Your task to perform on an android device: Empty the shopping cart on target.com. Add "jbl flip 4" to the cart on target.com Image 0: 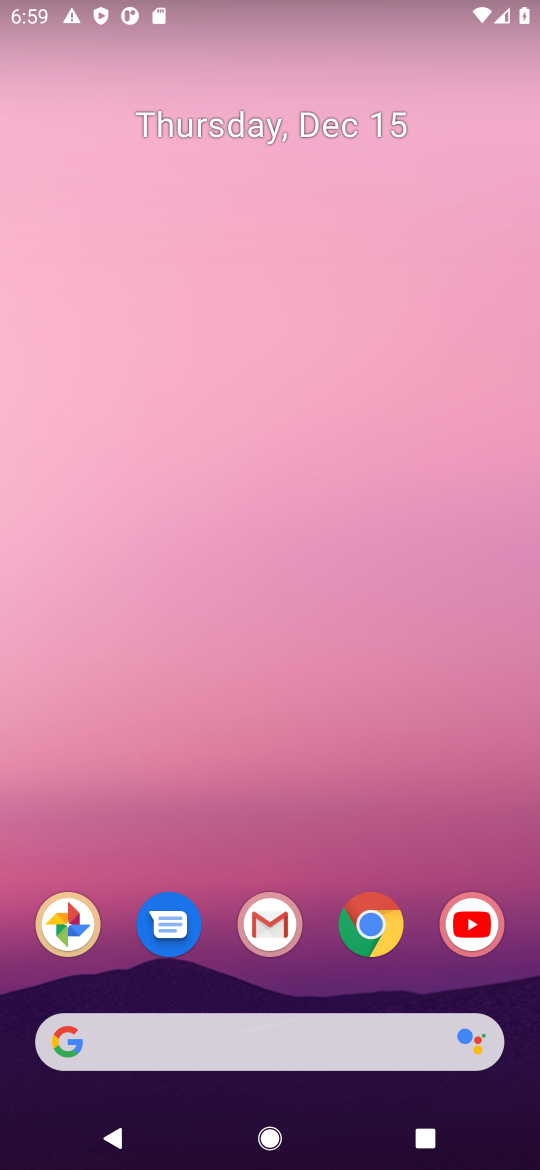
Step 0: click (365, 914)
Your task to perform on an android device: Empty the shopping cart on target.com. Add "jbl flip 4" to the cart on target.com Image 1: 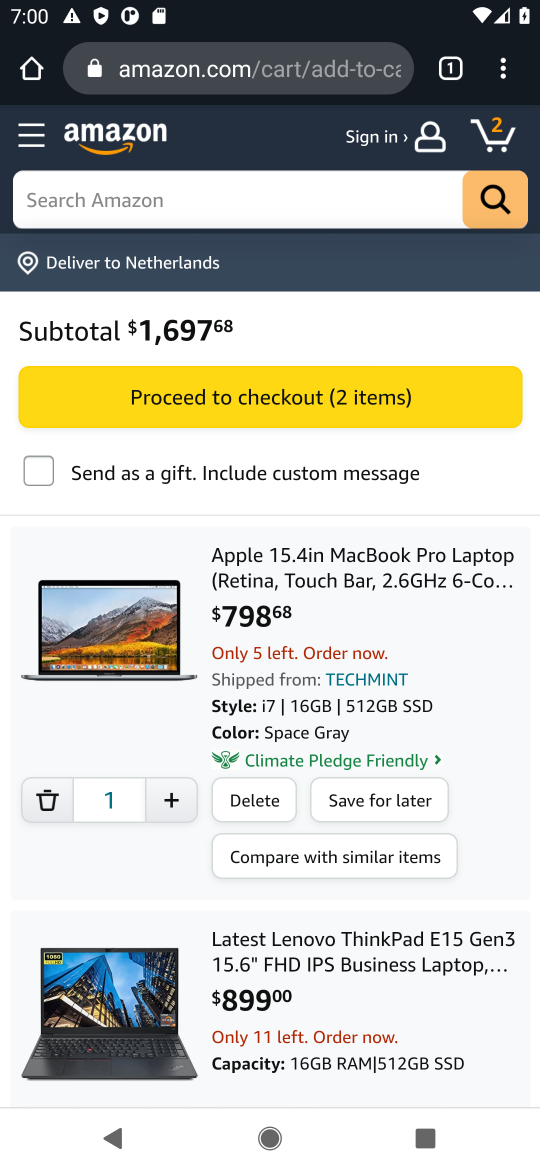
Step 1: click (266, 78)
Your task to perform on an android device: Empty the shopping cart on target.com. Add "jbl flip 4" to the cart on target.com Image 2: 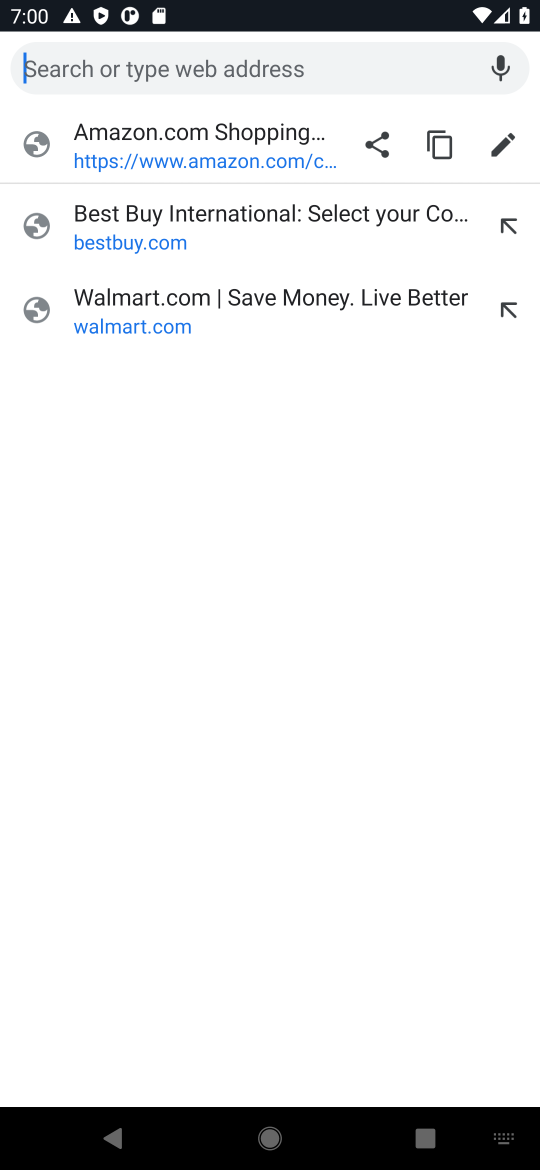
Step 2: type "target"
Your task to perform on an android device: Empty the shopping cart on target.com. Add "jbl flip 4" to the cart on target.com Image 3: 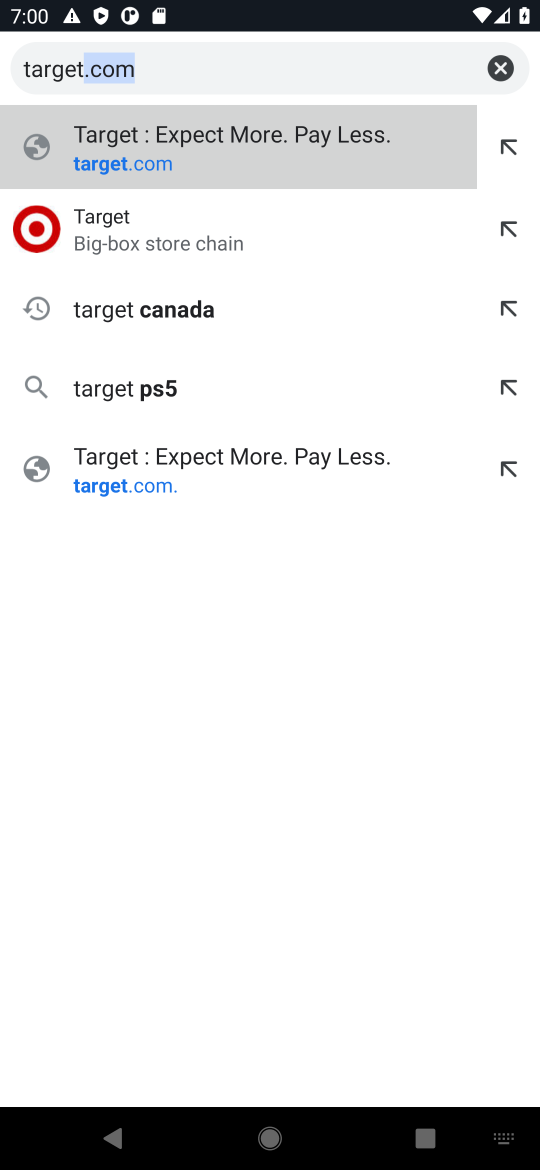
Step 3: click (128, 204)
Your task to perform on an android device: Empty the shopping cart on target.com. Add "jbl flip 4" to the cart on target.com Image 4: 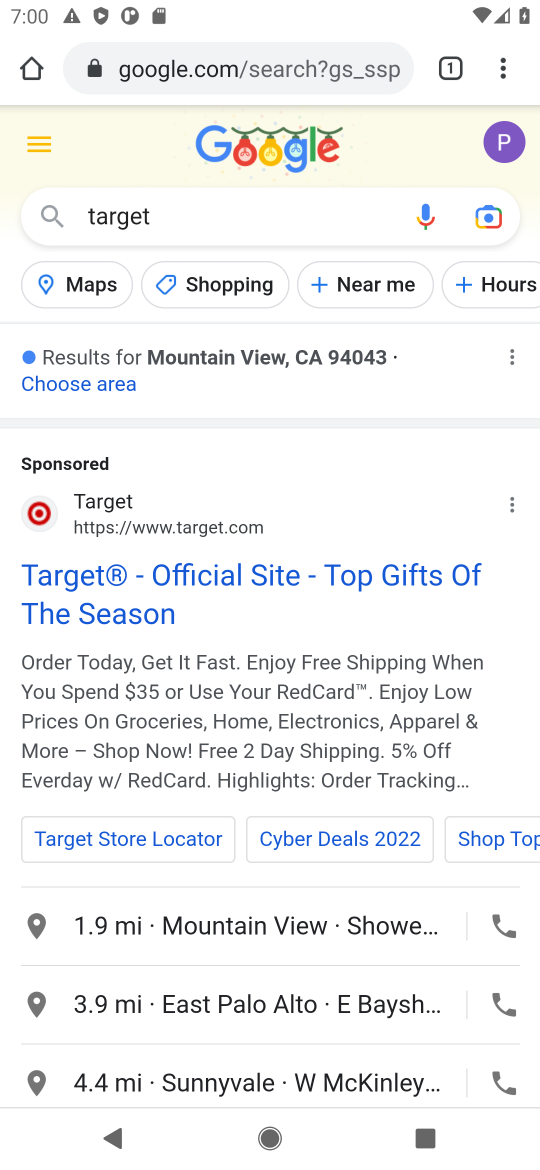
Step 4: click (224, 571)
Your task to perform on an android device: Empty the shopping cart on target.com. Add "jbl flip 4" to the cart on target.com Image 5: 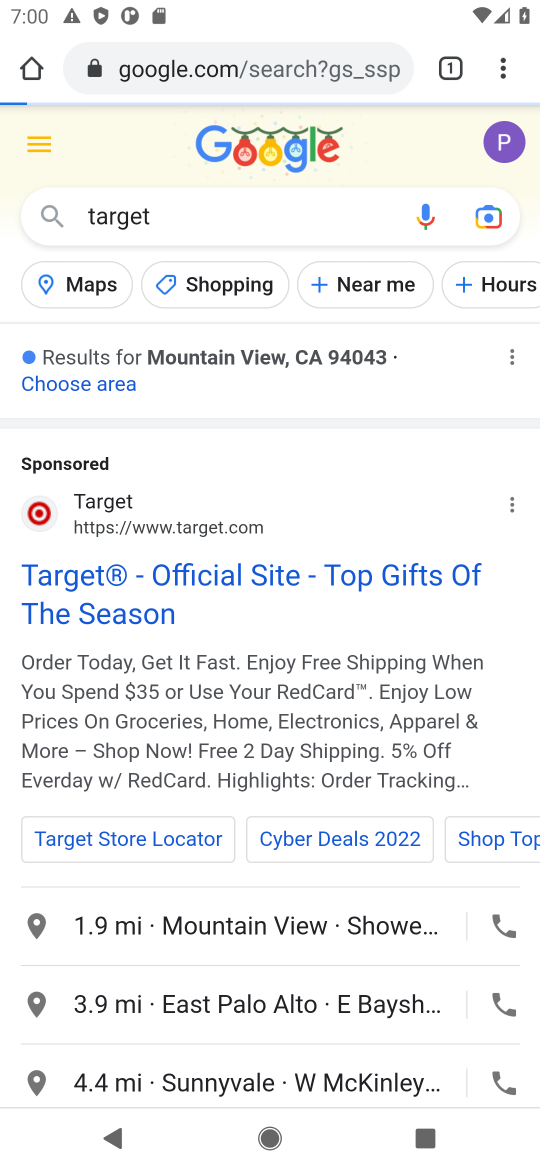
Step 5: click (114, 596)
Your task to perform on an android device: Empty the shopping cart on target.com. Add "jbl flip 4" to the cart on target.com Image 6: 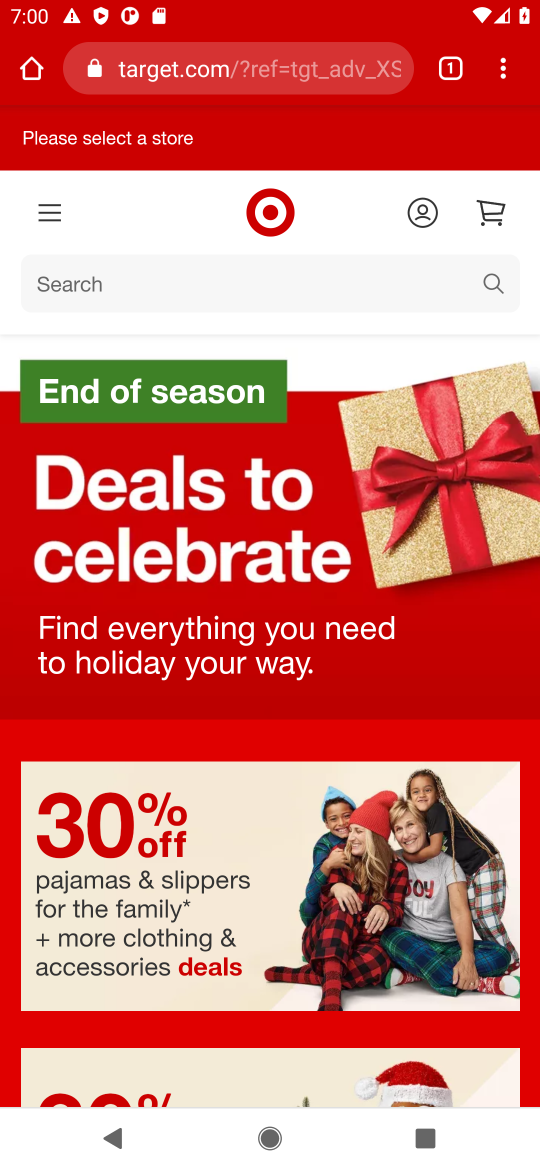
Step 6: click (482, 215)
Your task to perform on an android device: Empty the shopping cart on target.com. Add "jbl flip 4" to the cart on target.com Image 7: 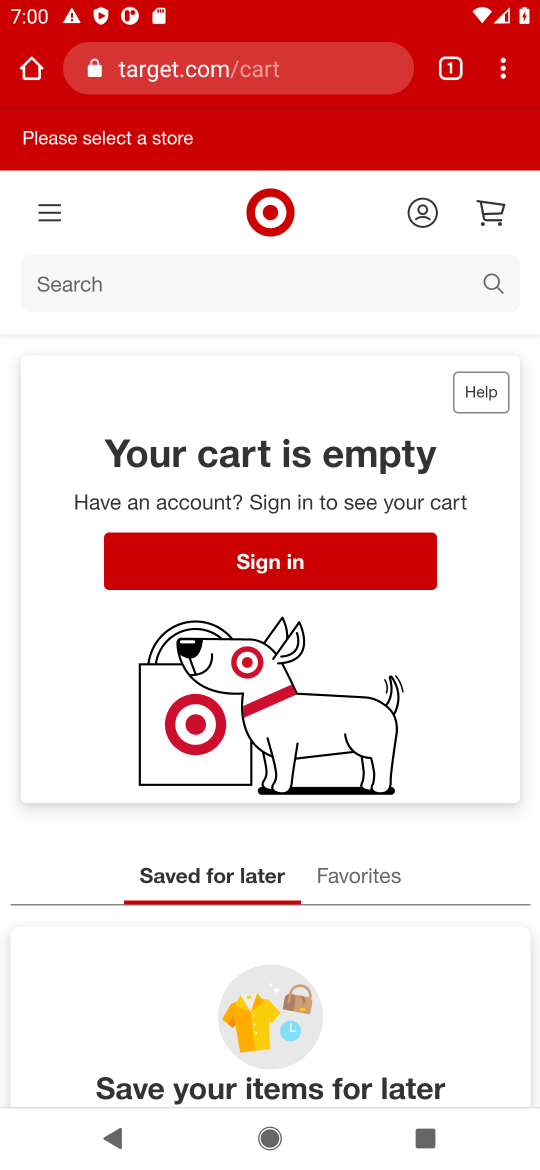
Step 7: click (155, 273)
Your task to perform on an android device: Empty the shopping cart on target.com. Add "jbl flip 4" to the cart on target.com Image 8: 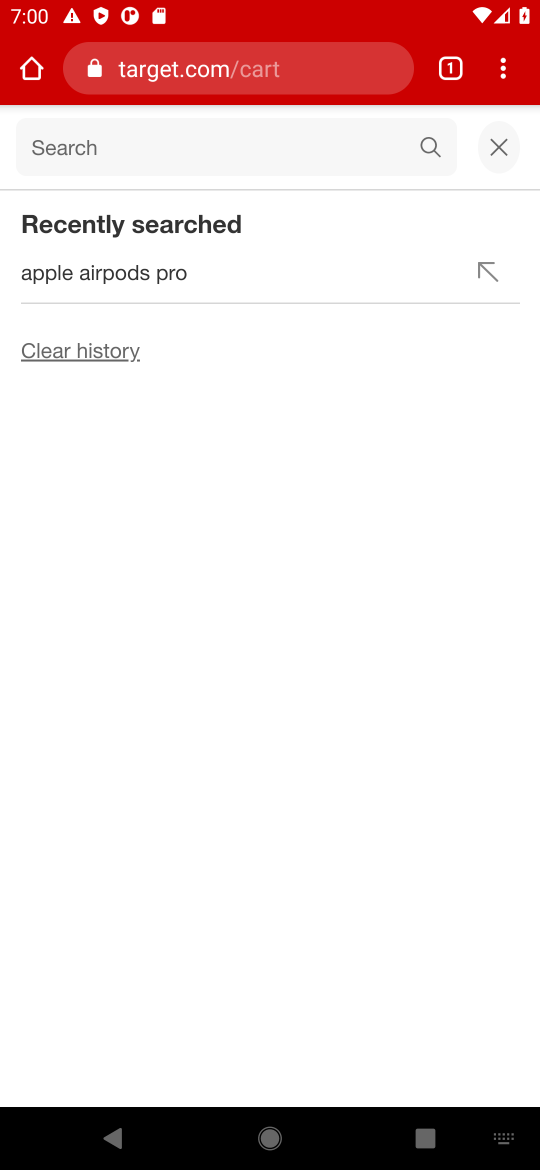
Step 8: type ""jbl flip 4"
Your task to perform on an android device: Empty the shopping cart on target.com. Add "jbl flip 4" to the cart on target.com Image 9: 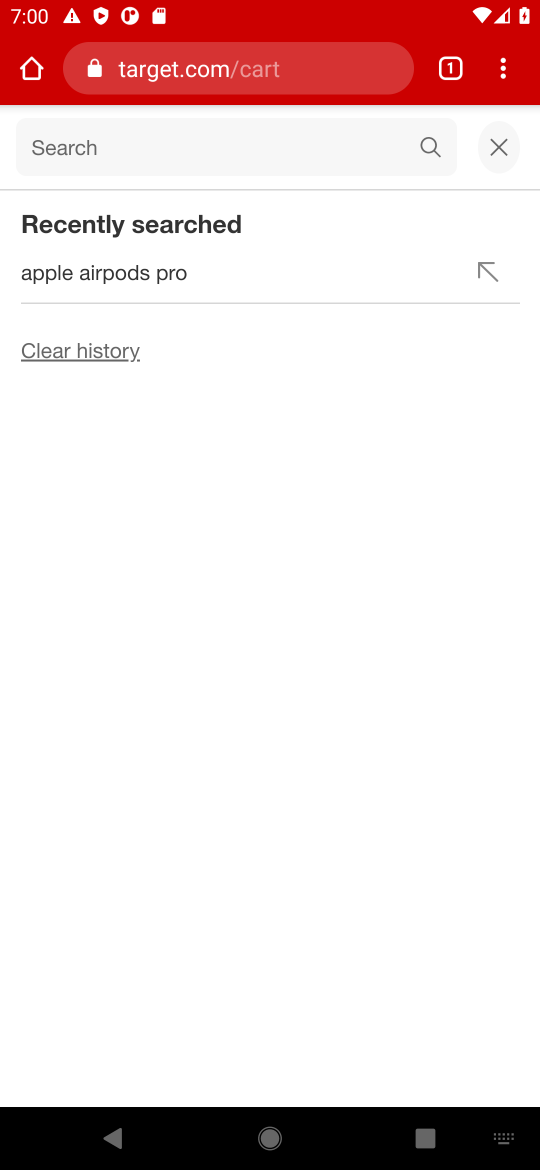
Step 9: type "jbl flip 4"
Your task to perform on an android device: Empty the shopping cart on target.com. Add "jbl flip 4" to the cart on target.com Image 10: 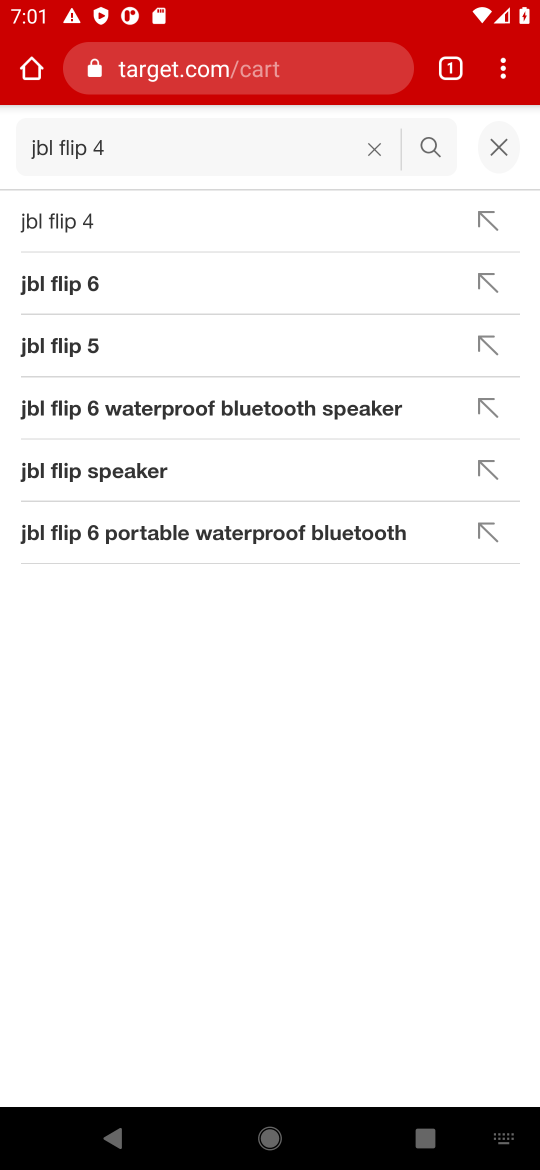
Step 10: click (29, 222)
Your task to perform on an android device: Empty the shopping cart on target.com. Add "jbl flip 4" to the cart on target.com Image 11: 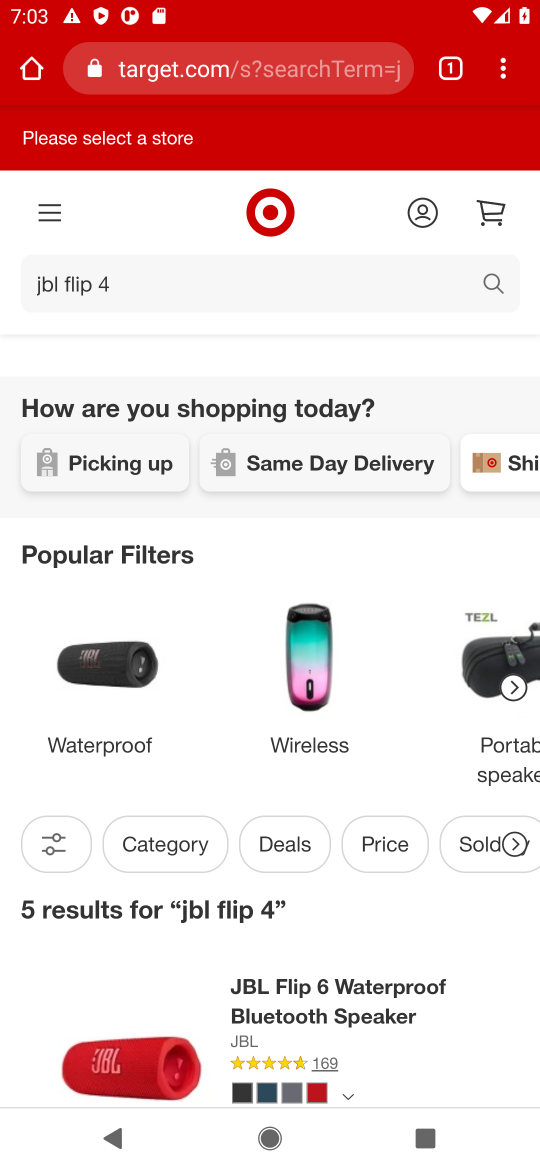
Step 11: task complete